Your task to perform on an android device: see tabs open on other devices in the chrome app Image 0: 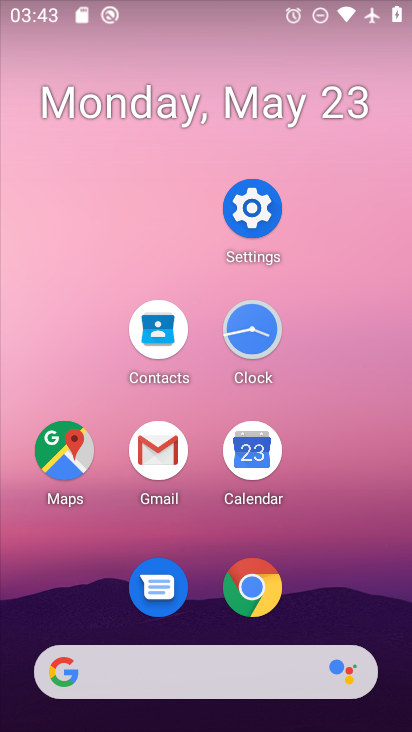
Step 0: click (259, 609)
Your task to perform on an android device: see tabs open on other devices in the chrome app Image 1: 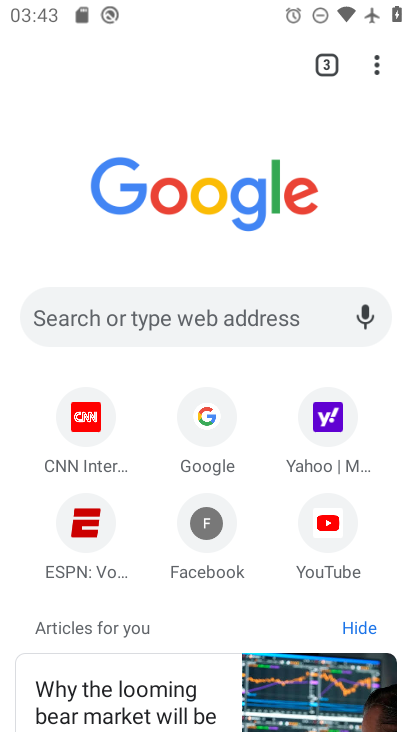
Step 1: click (379, 57)
Your task to perform on an android device: see tabs open on other devices in the chrome app Image 2: 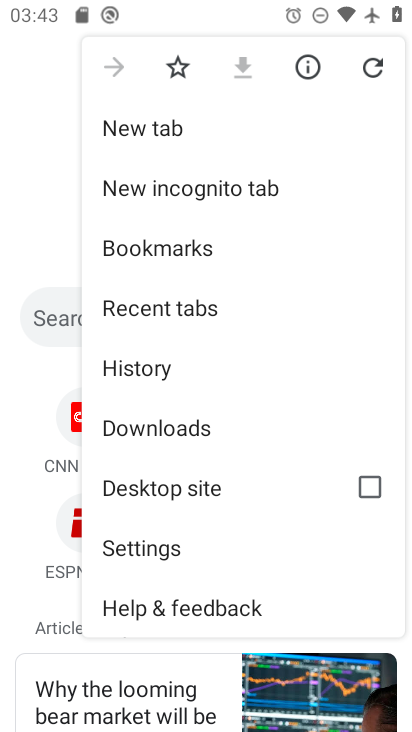
Step 2: click (206, 295)
Your task to perform on an android device: see tabs open on other devices in the chrome app Image 3: 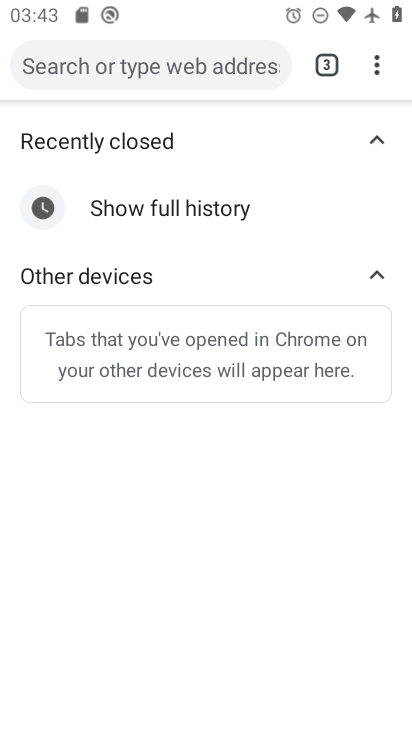
Step 3: task complete